Your task to perform on an android device: turn notification dots off Image 0: 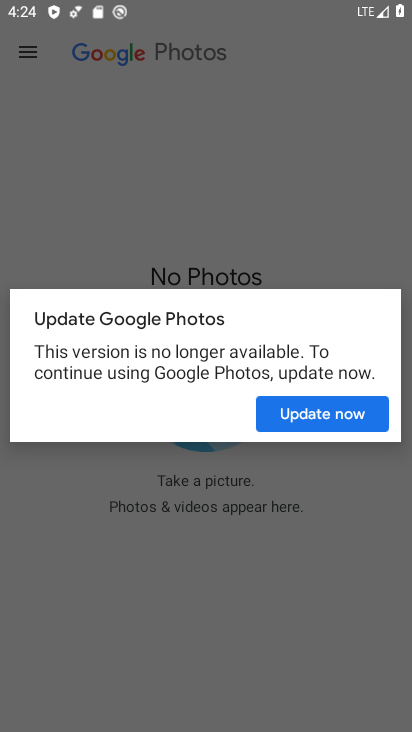
Step 0: press back button
Your task to perform on an android device: turn notification dots off Image 1: 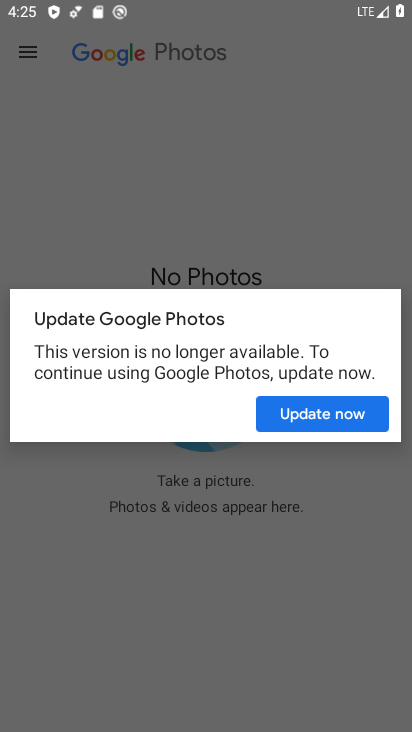
Step 1: press back button
Your task to perform on an android device: turn notification dots off Image 2: 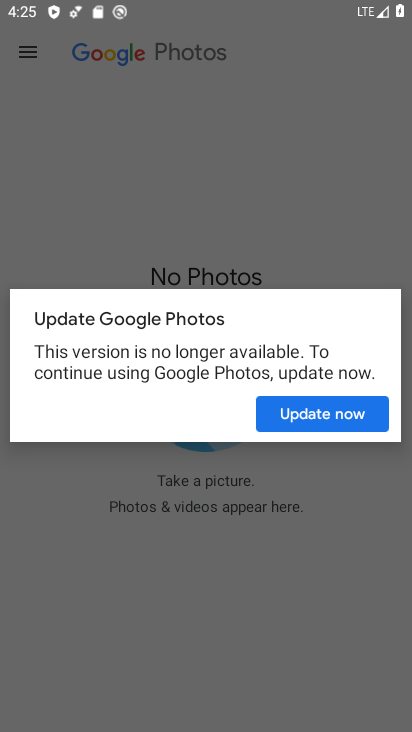
Step 2: press home button
Your task to perform on an android device: turn notification dots off Image 3: 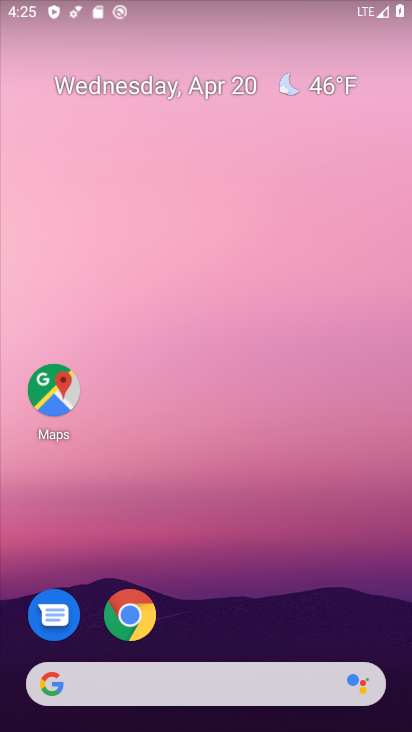
Step 3: drag from (205, 567) to (302, 66)
Your task to perform on an android device: turn notification dots off Image 4: 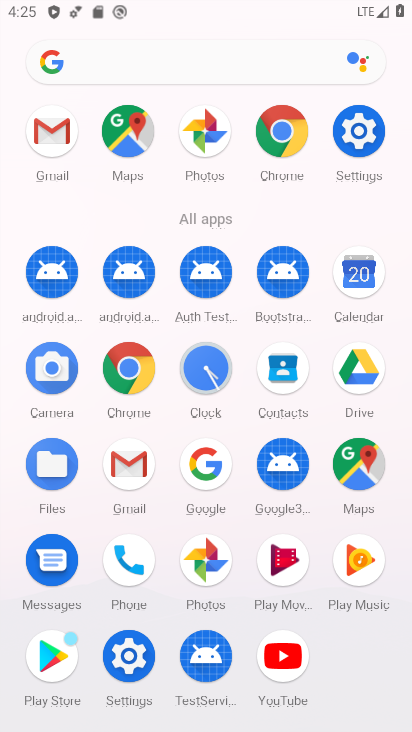
Step 4: click (363, 121)
Your task to perform on an android device: turn notification dots off Image 5: 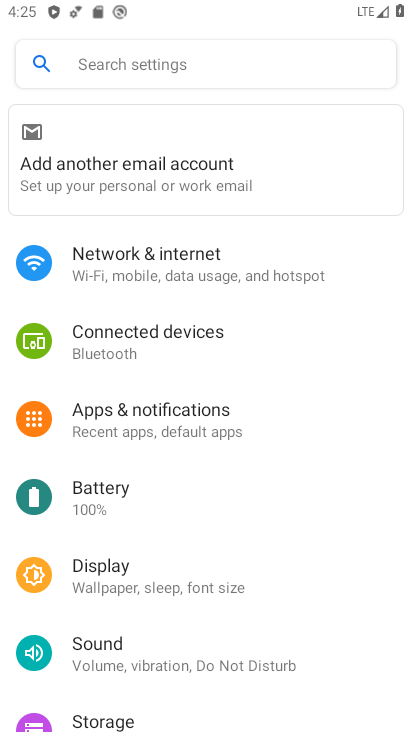
Step 5: click (162, 423)
Your task to perform on an android device: turn notification dots off Image 6: 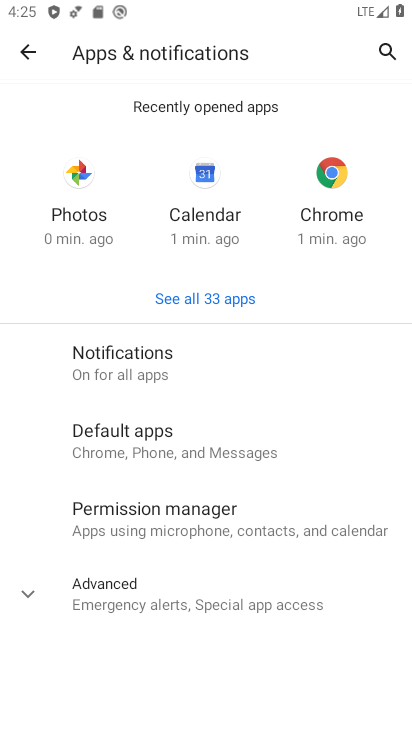
Step 6: drag from (176, 581) to (257, 94)
Your task to perform on an android device: turn notification dots off Image 7: 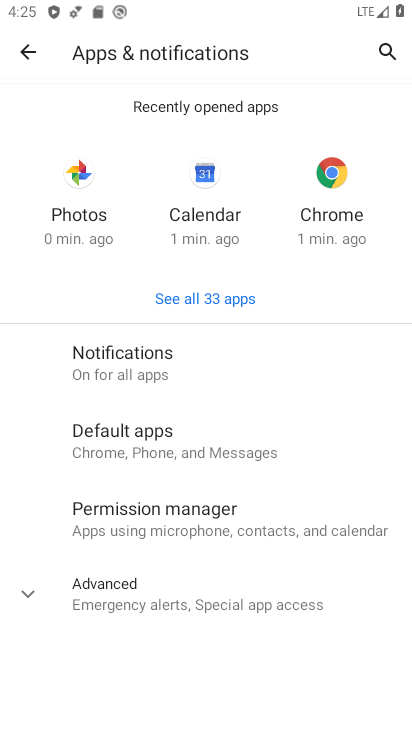
Step 7: click (132, 355)
Your task to perform on an android device: turn notification dots off Image 8: 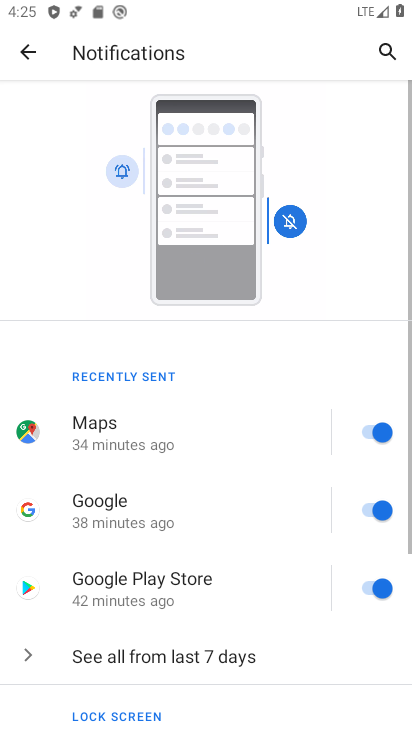
Step 8: drag from (183, 574) to (325, 93)
Your task to perform on an android device: turn notification dots off Image 9: 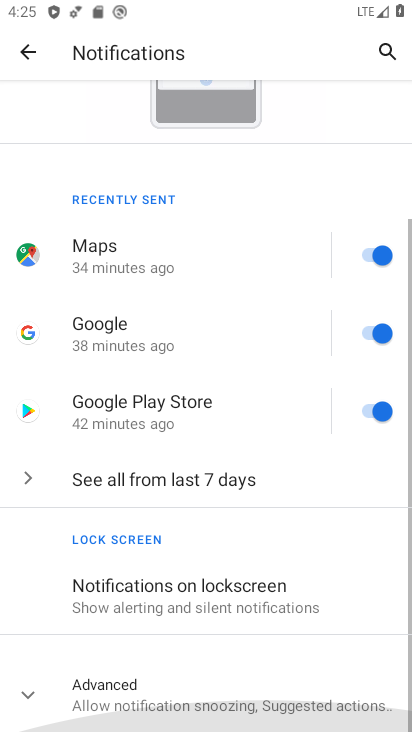
Step 9: drag from (189, 561) to (267, 106)
Your task to perform on an android device: turn notification dots off Image 10: 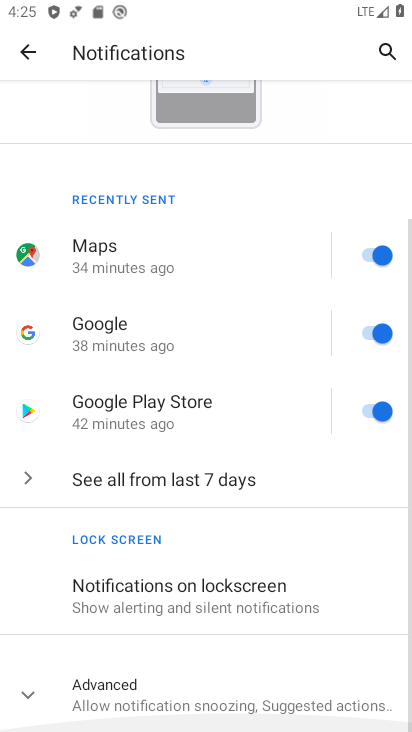
Step 10: click (136, 696)
Your task to perform on an android device: turn notification dots off Image 11: 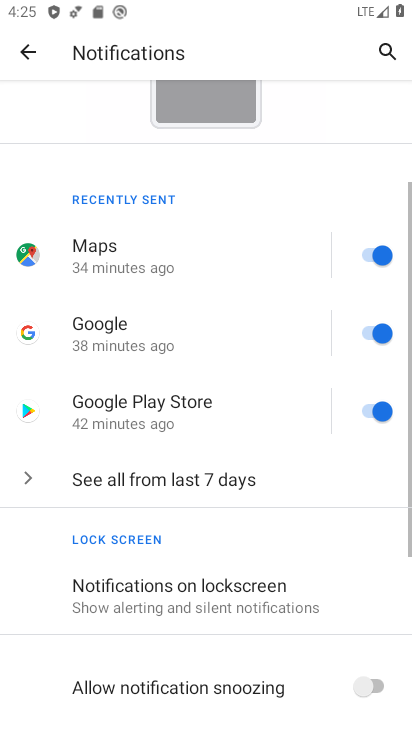
Step 11: drag from (234, 556) to (343, 154)
Your task to perform on an android device: turn notification dots off Image 12: 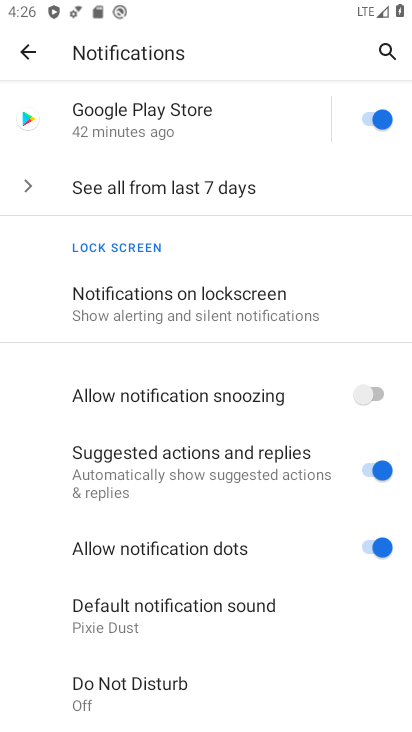
Step 12: click (376, 543)
Your task to perform on an android device: turn notification dots off Image 13: 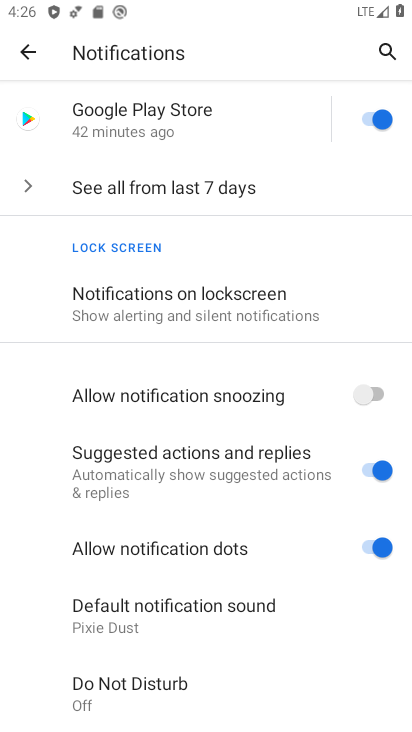
Step 13: task complete